Your task to perform on an android device: Go to Yahoo.com Image 0: 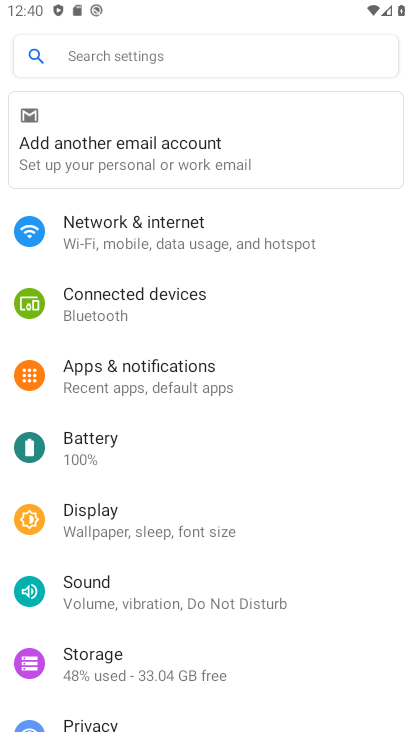
Step 0: press home button
Your task to perform on an android device: Go to Yahoo.com Image 1: 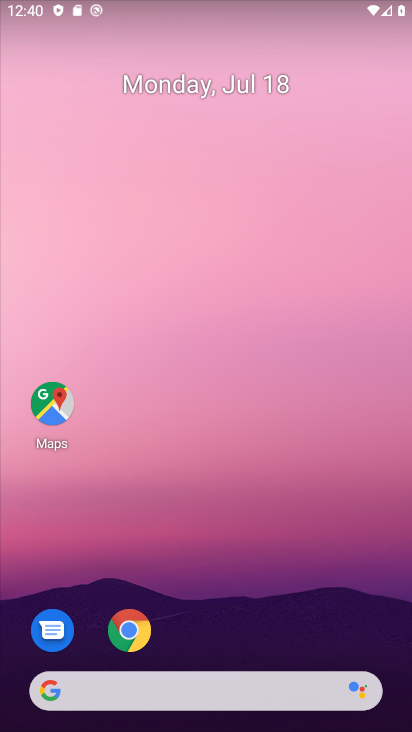
Step 1: click (271, 696)
Your task to perform on an android device: Go to Yahoo.com Image 2: 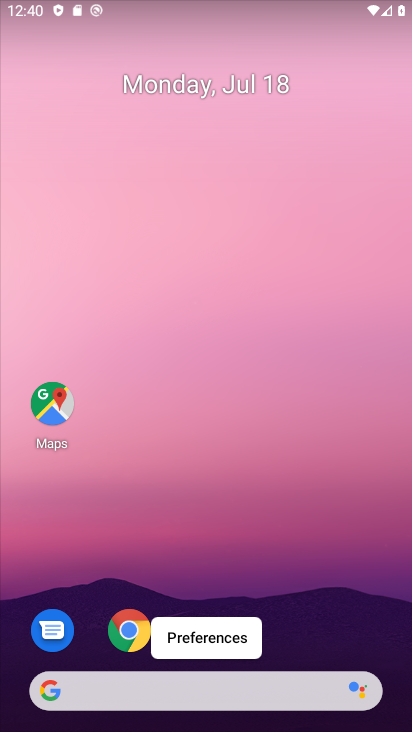
Step 2: click (217, 690)
Your task to perform on an android device: Go to Yahoo.com Image 3: 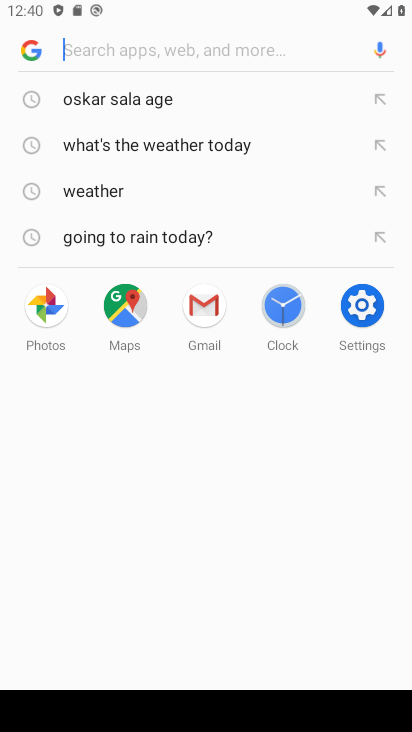
Step 3: type "yahoo.com"
Your task to perform on an android device: Go to Yahoo.com Image 4: 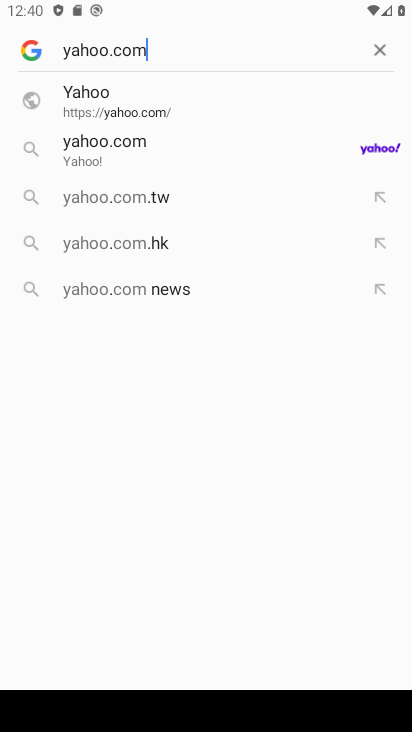
Step 4: click (378, 149)
Your task to perform on an android device: Go to Yahoo.com Image 5: 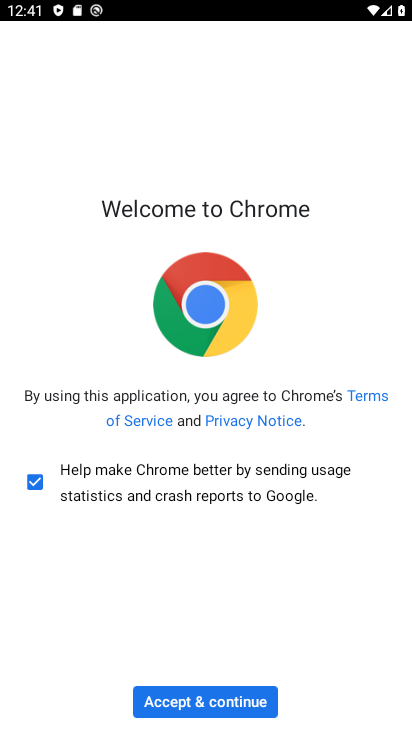
Step 5: click (252, 701)
Your task to perform on an android device: Go to Yahoo.com Image 6: 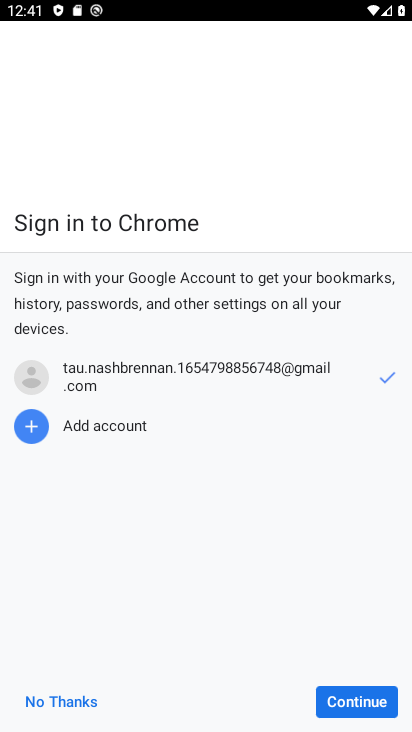
Step 6: click (344, 698)
Your task to perform on an android device: Go to Yahoo.com Image 7: 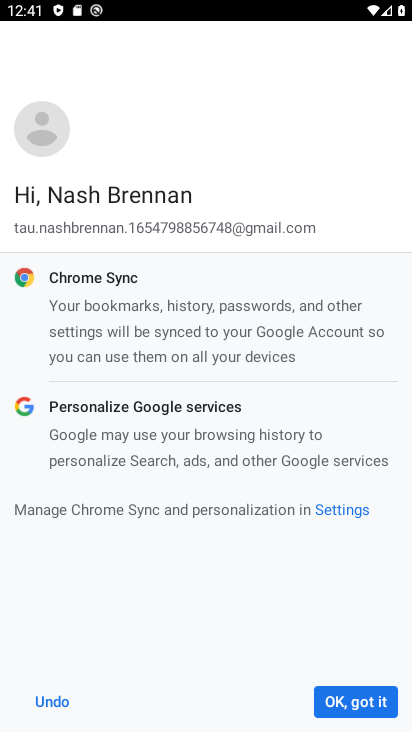
Step 7: click (346, 700)
Your task to perform on an android device: Go to Yahoo.com Image 8: 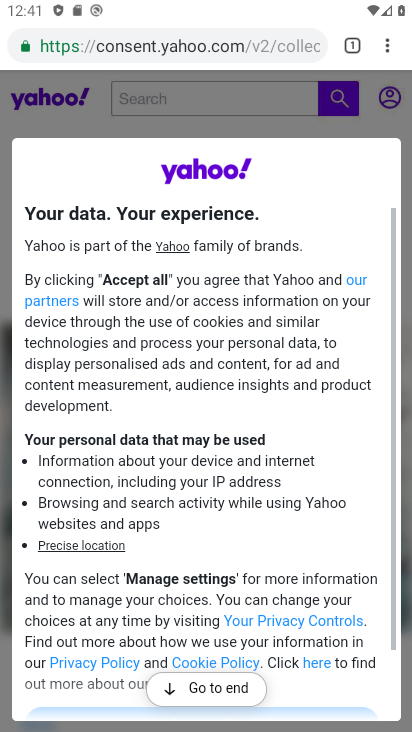
Step 8: click (246, 688)
Your task to perform on an android device: Go to Yahoo.com Image 9: 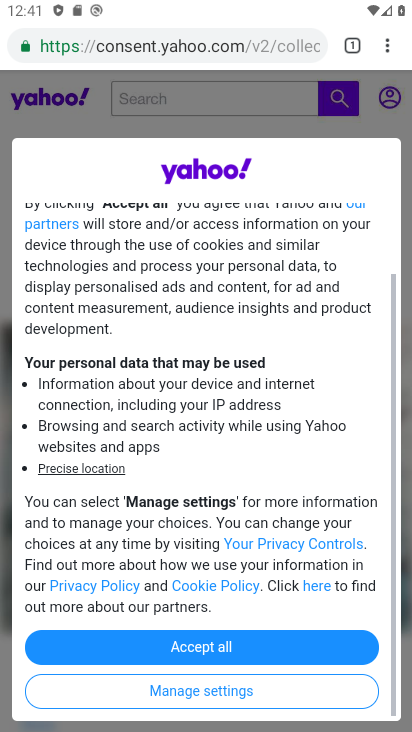
Step 9: click (259, 651)
Your task to perform on an android device: Go to Yahoo.com Image 10: 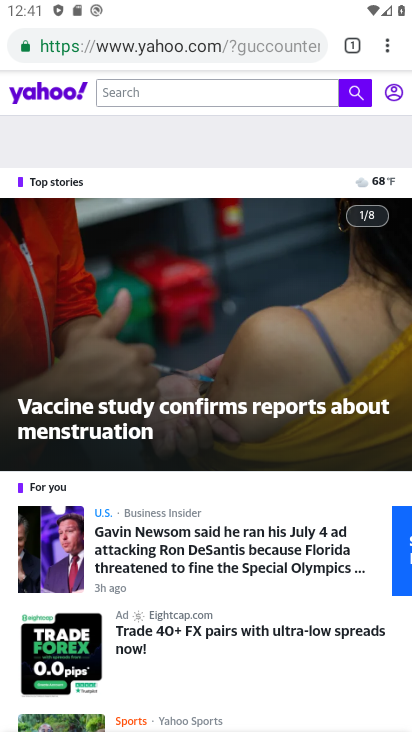
Step 10: drag from (277, 580) to (282, 154)
Your task to perform on an android device: Go to Yahoo.com Image 11: 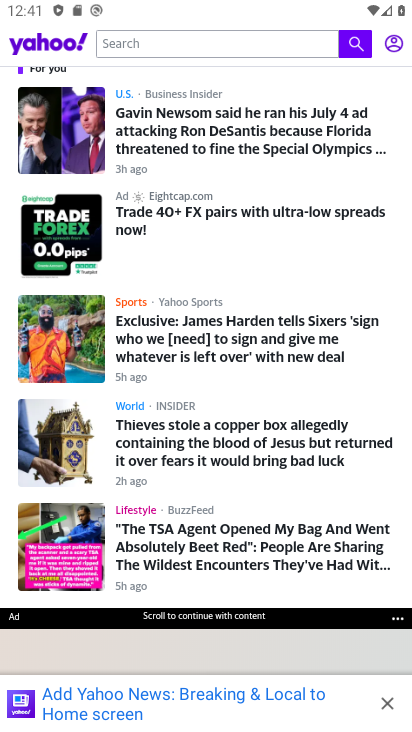
Step 11: click (283, 542)
Your task to perform on an android device: Go to Yahoo.com Image 12: 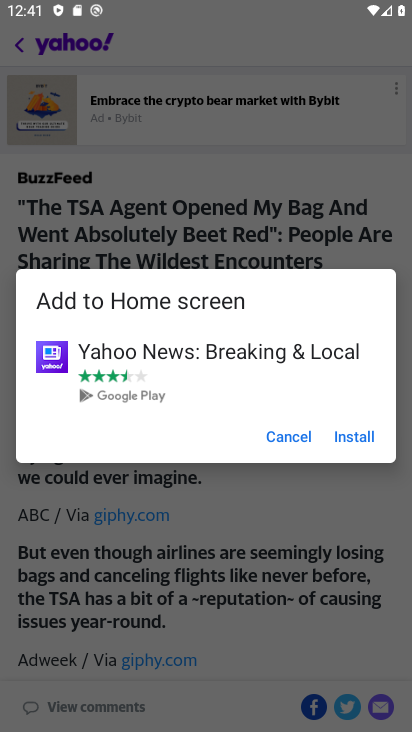
Step 12: click (298, 436)
Your task to perform on an android device: Go to Yahoo.com Image 13: 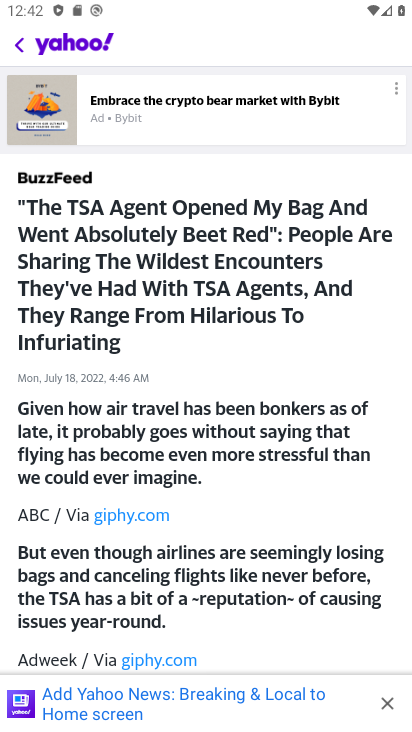
Step 13: task complete